Your task to perform on an android device: change the clock display to digital Image 0: 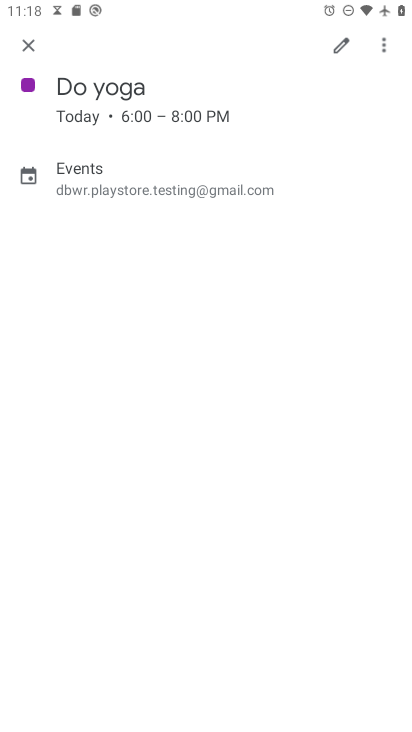
Step 0: press home button
Your task to perform on an android device: change the clock display to digital Image 1: 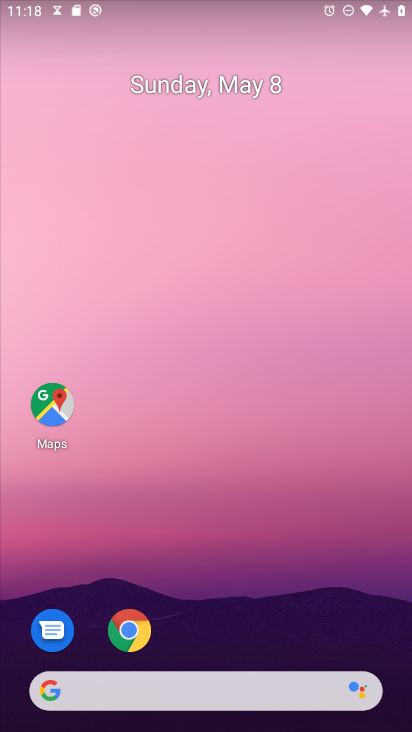
Step 1: drag from (234, 687) to (284, 207)
Your task to perform on an android device: change the clock display to digital Image 2: 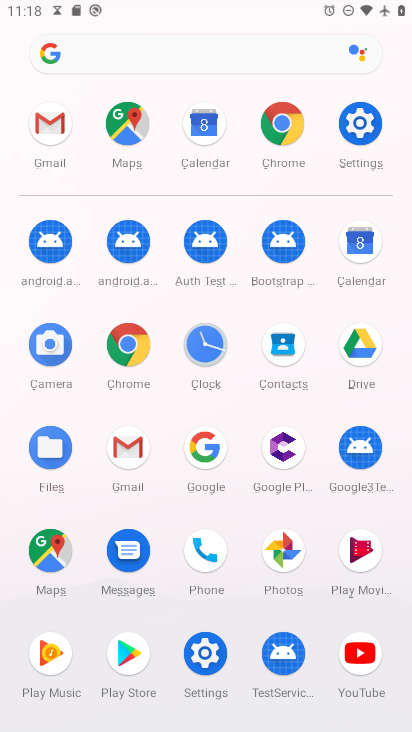
Step 2: click (199, 347)
Your task to perform on an android device: change the clock display to digital Image 3: 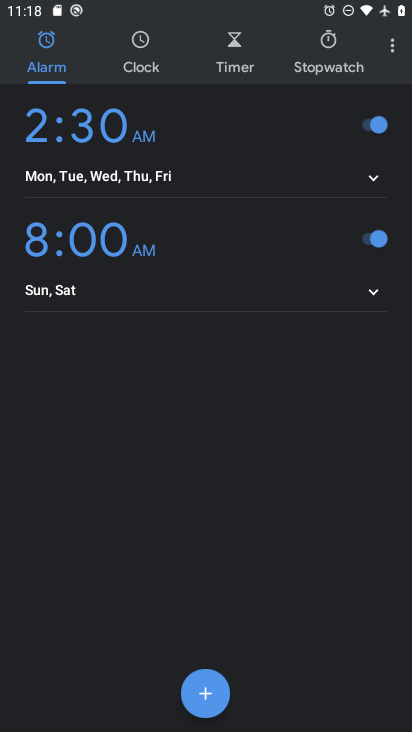
Step 3: click (397, 37)
Your task to perform on an android device: change the clock display to digital Image 4: 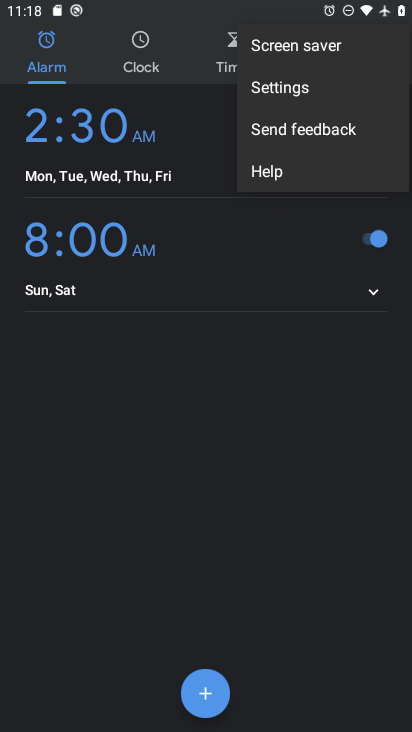
Step 4: click (308, 87)
Your task to perform on an android device: change the clock display to digital Image 5: 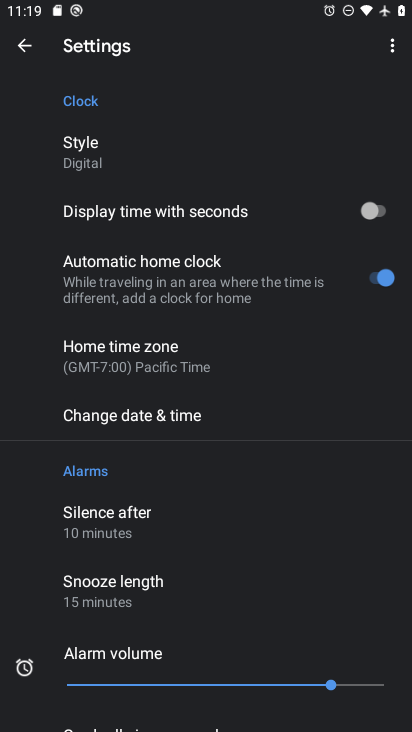
Step 5: task complete